Your task to perform on an android device: turn on javascript in the chrome app Image 0: 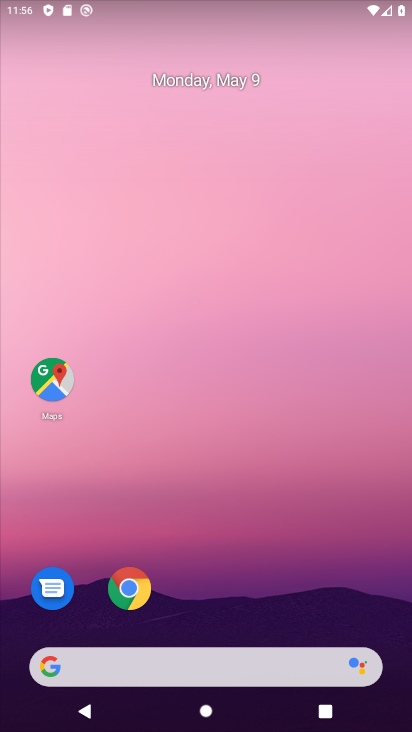
Step 0: click (129, 588)
Your task to perform on an android device: turn on javascript in the chrome app Image 1: 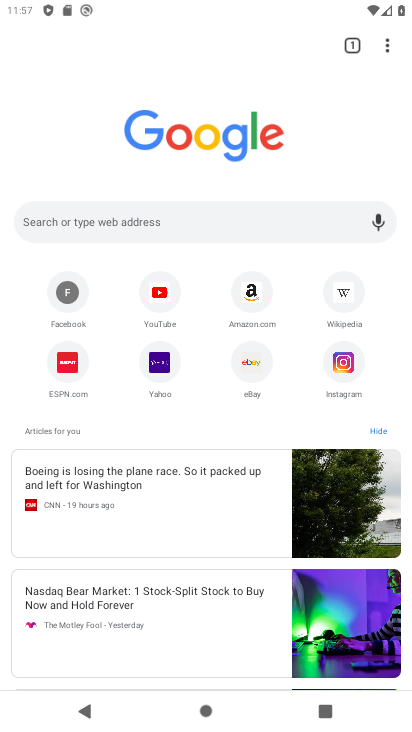
Step 1: click (386, 46)
Your task to perform on an android device: turn on javascript in the chrome app Image 2: 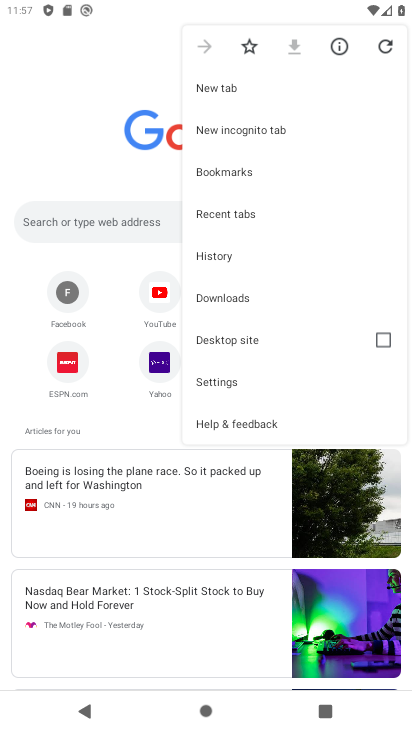
Step 2: click (233, 378)
Your task to perform on an android device: turn on javascript in the chrome app Image 3: 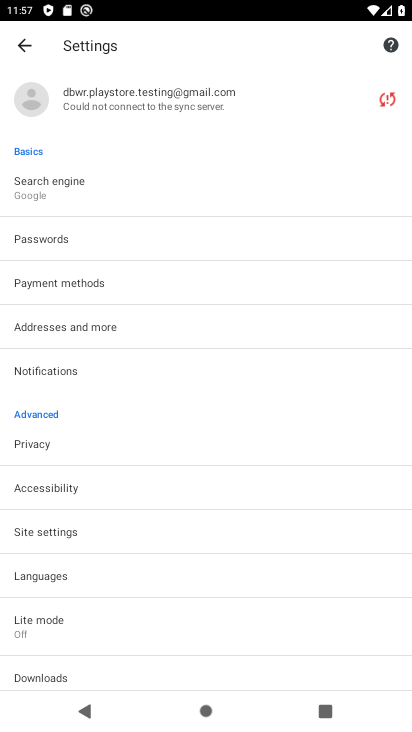
Step 3: click (125, 525)
Your task to perform on an android device: turn on javascript in the chrome app Image 4: 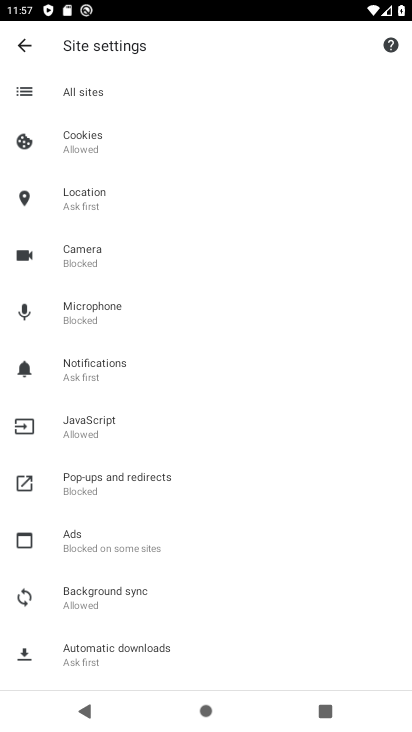
Step 4: click (110, 422)
Your task to perform on an android device: turn on javascript in the chrome app Image 5: 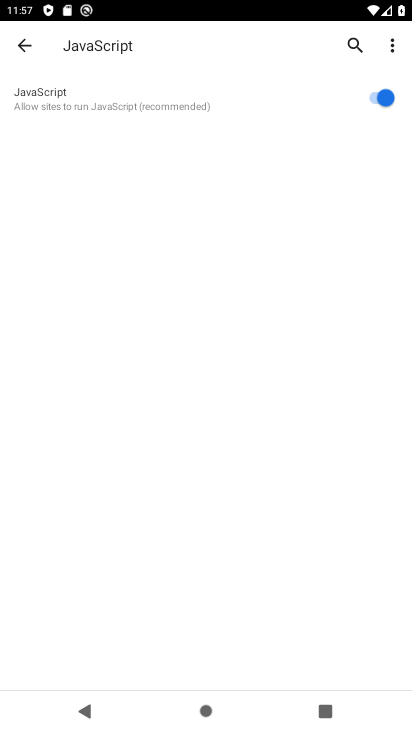
Step 5: task complete